Your task to perform on an android device: delete browsing data in the chrome app Image 0: 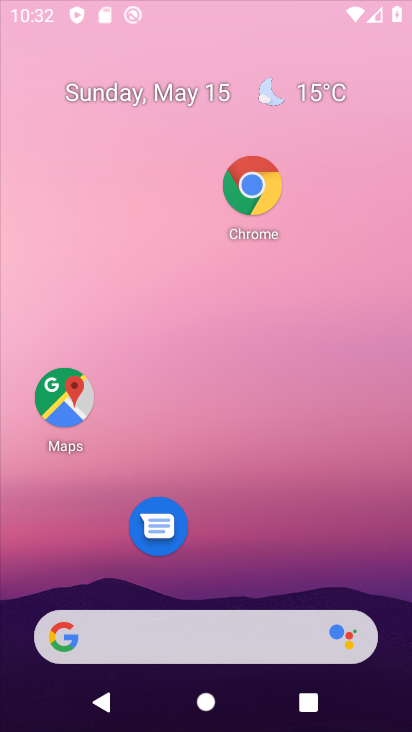
Step 0: click (201, 84)
Your task to perform on an android device: delete browsing data in the chrome app Image 1: 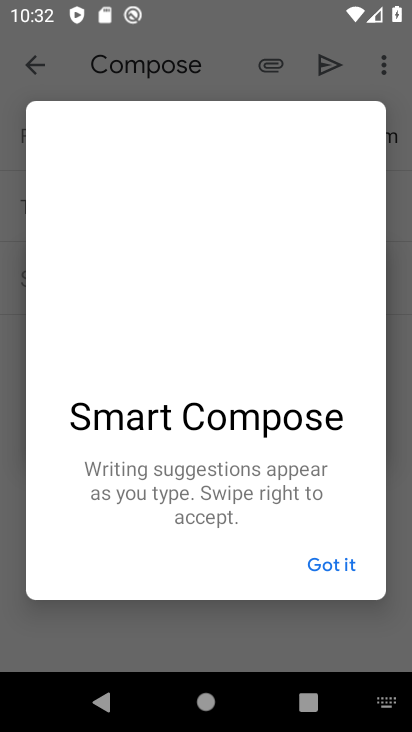
Step 1: press home button
Your task to perform on an android device: delete browsing data in the chrome app Image 2: 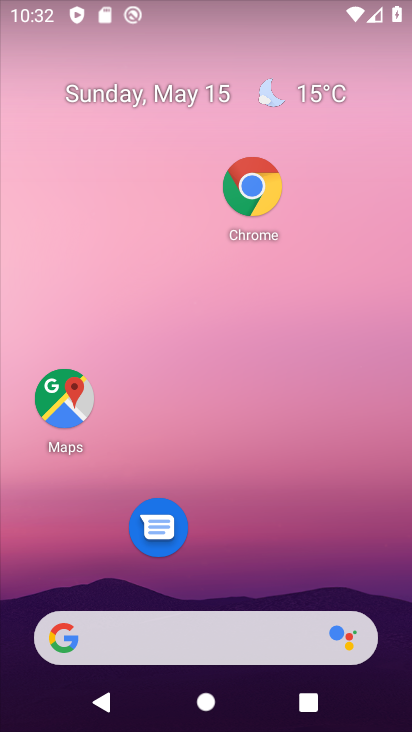
Step 2: click (268, 218)
Your task to perform on an android device: delete browsing data in the chrome app Image 3: 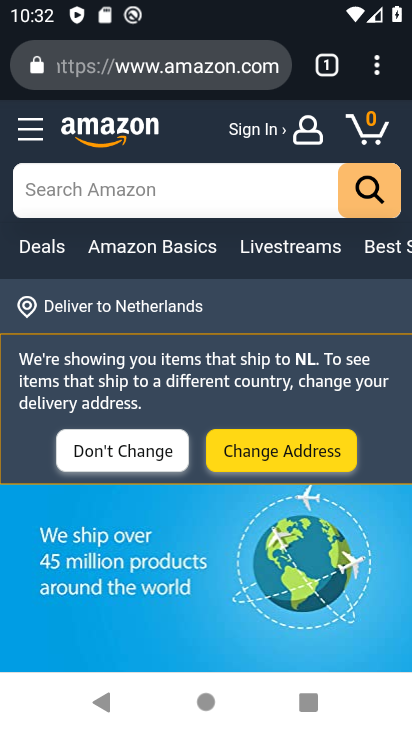
Step 3: click (377, 67)
Your task to perform on an android device: delete browsing data in the chrome app Image 4: 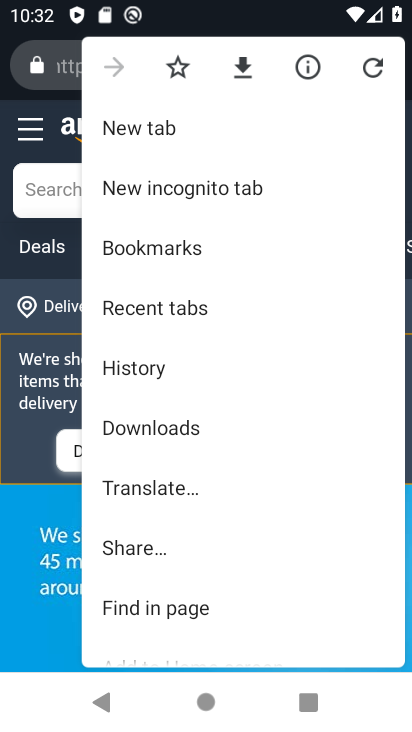
Step 4: click (174, 357)
Your task to perform on an android device: delete browsing data in the chrome app Image 5: 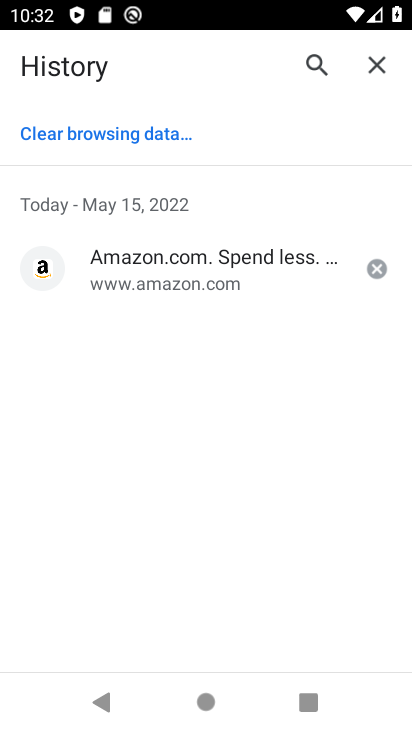
Step 5: click (106, 133)
Your task to perform on an android device: delete browsing data in the chrome app Image 6: 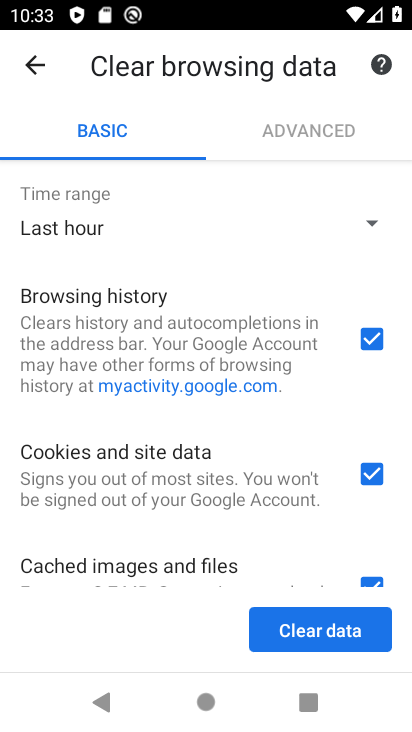
Step 6: click (338, 639)
Your task to perform on an android device: delete browsing data in the chrome app Image 7: 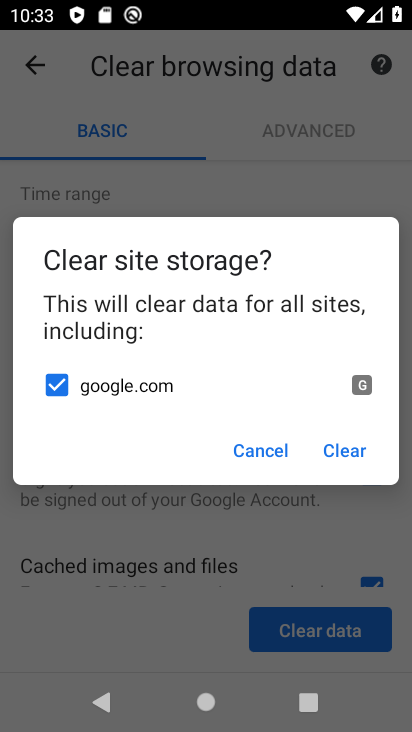
Step 7: click (324, 444)
Your task to perform on an android device: delete browsing data in the chrome app Image 8: 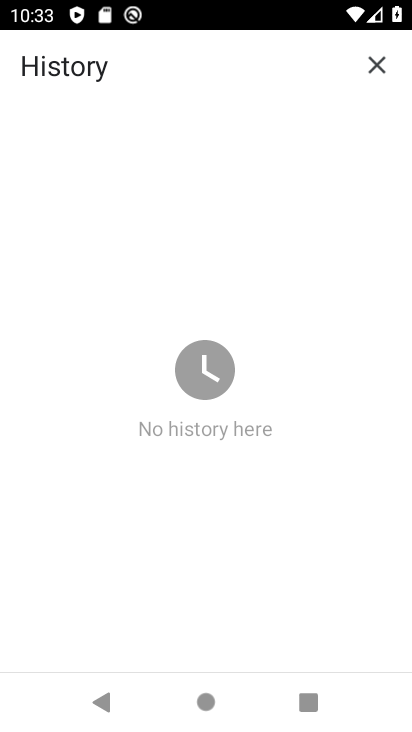
Step 8: task complete